Your task to perform on an android device: Open Youtube and go to the subscriptions tab Image 0: 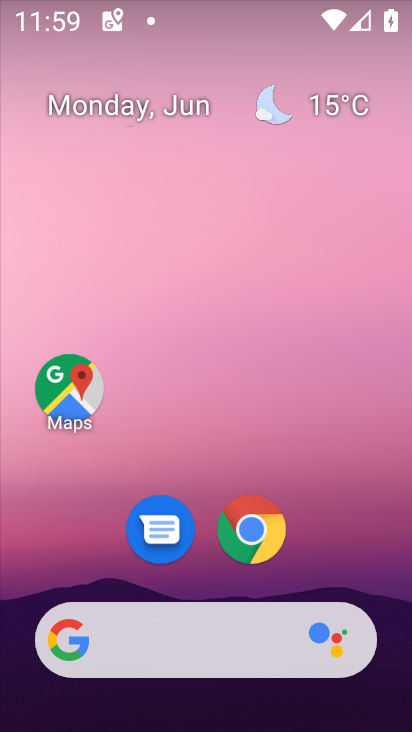
Step 0: drag from (69, 599) to (200, 127)
Your task to perform on an android device: Open Youtube and go to the subscriptions tab Image 1: 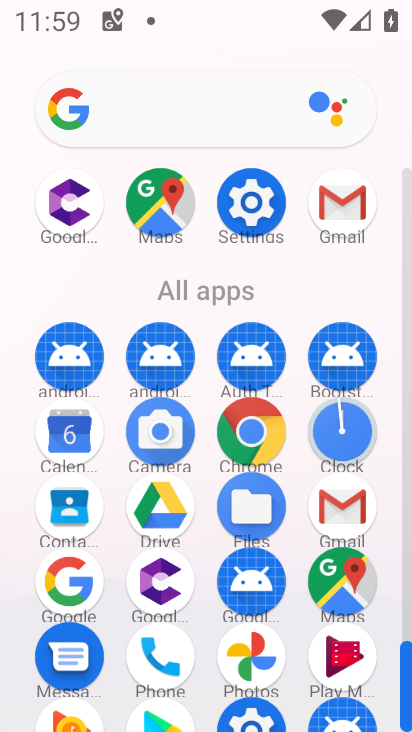
Step 1: drag from (199, 599) to (307, 218)
Your task to perform on an android device: Open Youtube and go to the subscriptions tab Image 2: 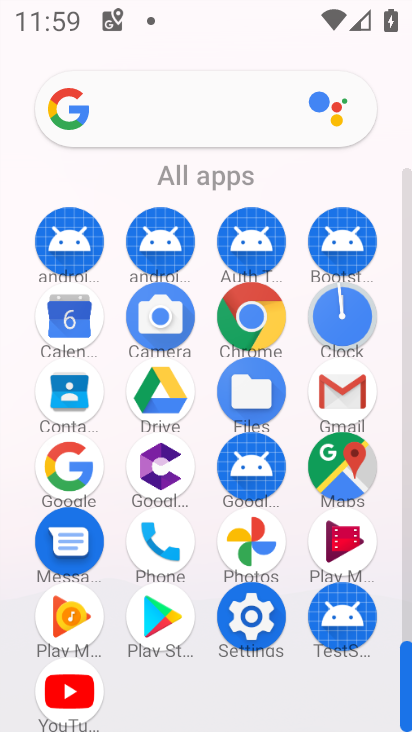
Step 2: click (64, 685)
Your task to perform on an android device: Open Youtube and go to the subscriptions tab Image 3: 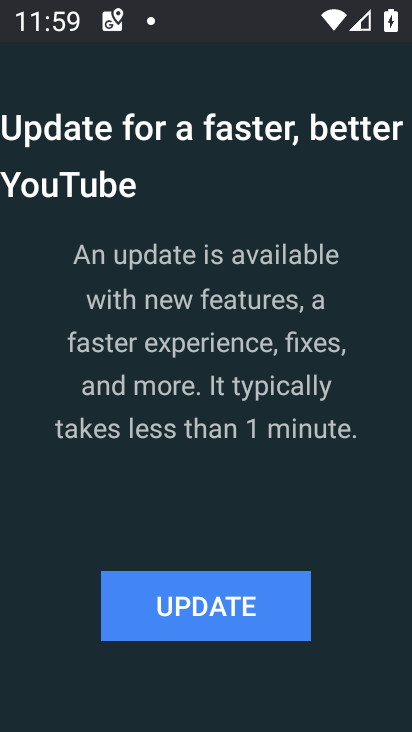
Step 3: click (235, 619)
Your task to perform on an android device: Open Youtube and go to the subscriptions tab Image 4: 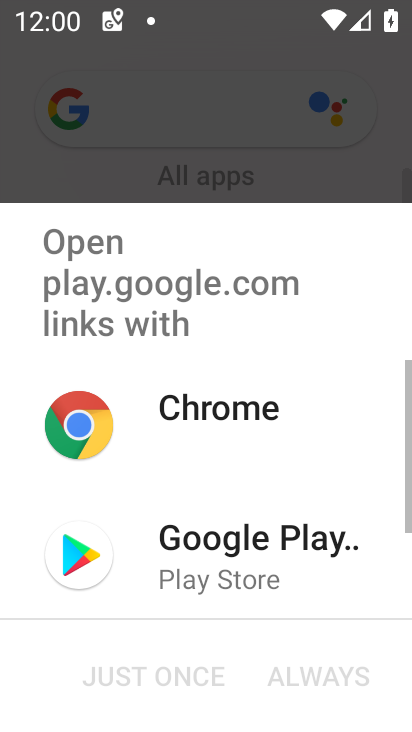
Step 4: click (241, 562)
Your task to perform on an android device: Open Youtube and go to the subscriptions tab Image 5: 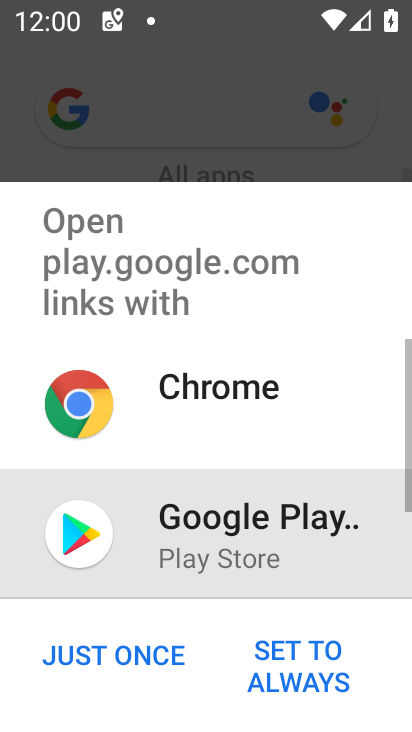
Step 5: click (142, 651)
Your task to perform on an android device: Open Youtube and go to the subscriptions tab Image 6: 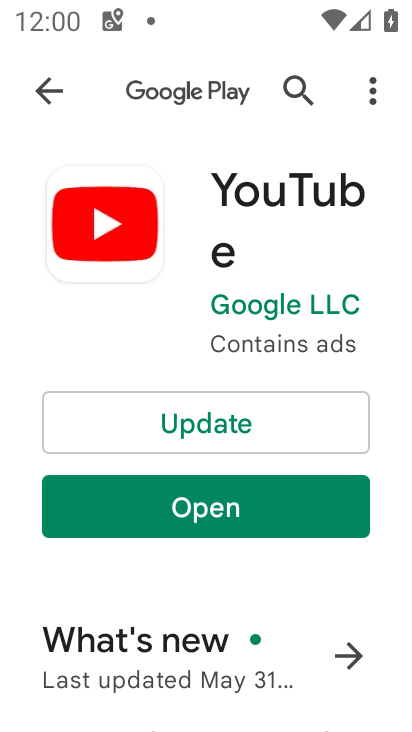
Step 6: click (282, 423)
Your task to perform on an android device: Open Youtube and go to the subscriptions tab Image 7: 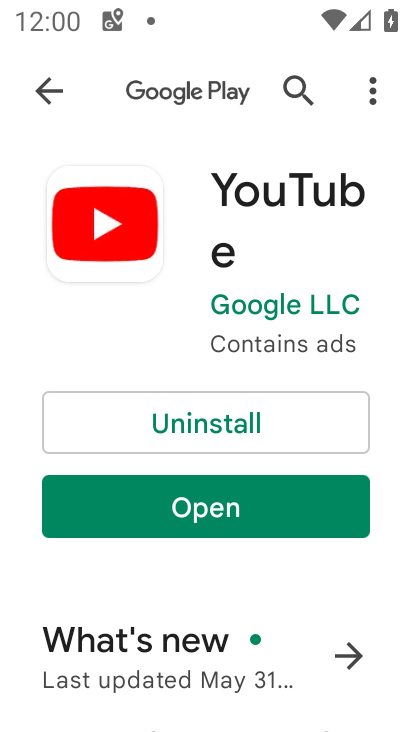
Step 7: click (289, 530)
Your task to perform on an android device: Open Youtube and go to the subscriptions tab Image 8: 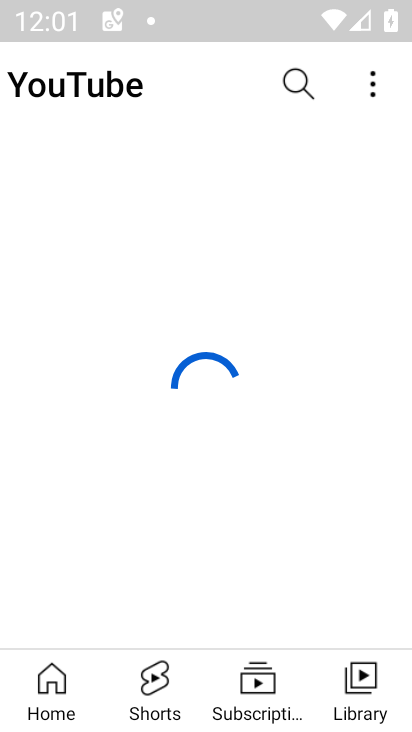
Step 8: click (286, 690)
Your task to perform on an android device: Open Youtube and go to the subscriptions tab Image 9: 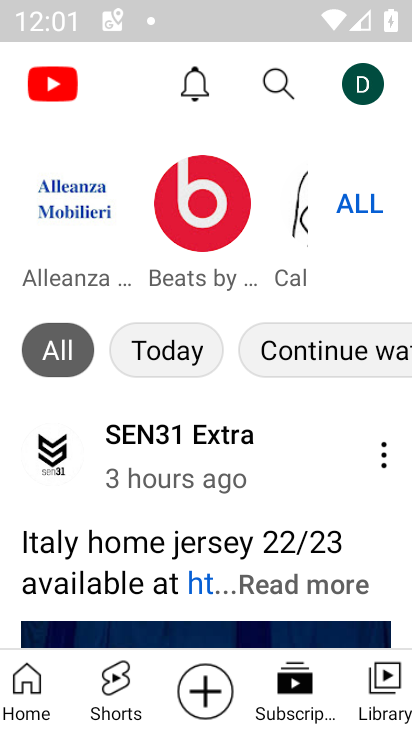
Step 9: task complete